Your task to perform on an android device: turn on wifi Image 0: 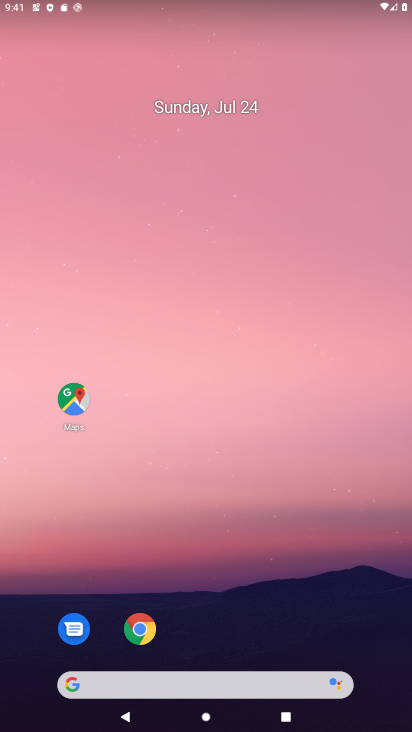
Step 0: drag from (268, 636) to (288, 43)
Your task to perform on an android device: turn on wifi Image 1: 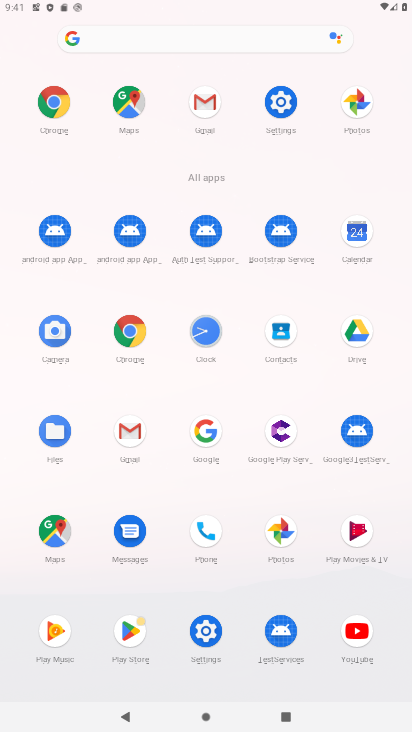
Step 1: click (266, 90)
Your task to perform on an android device: turn on wifi Image 2: 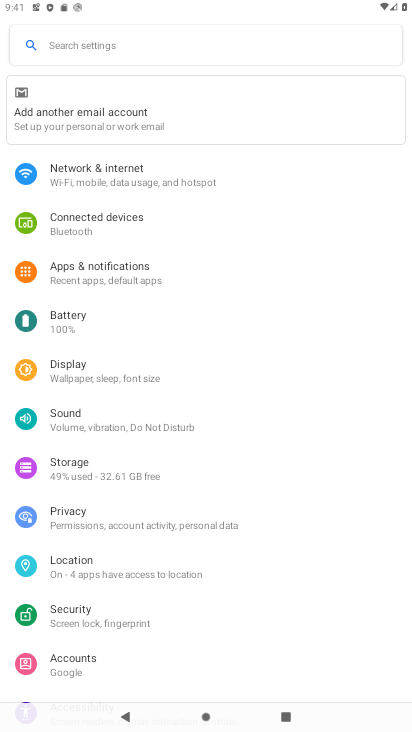
Step 2: click (174, 168)
Your task to perform on an android device: turn on wifi Image 3: 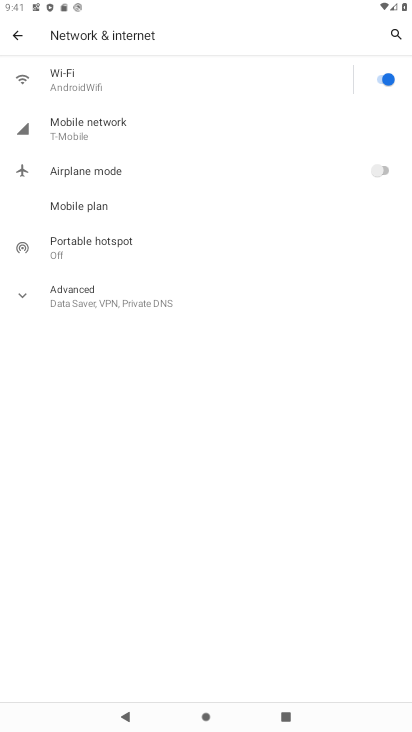
Step 3: click (176, 85)
Your task to perform on an android device: turn on wifi Image 4: 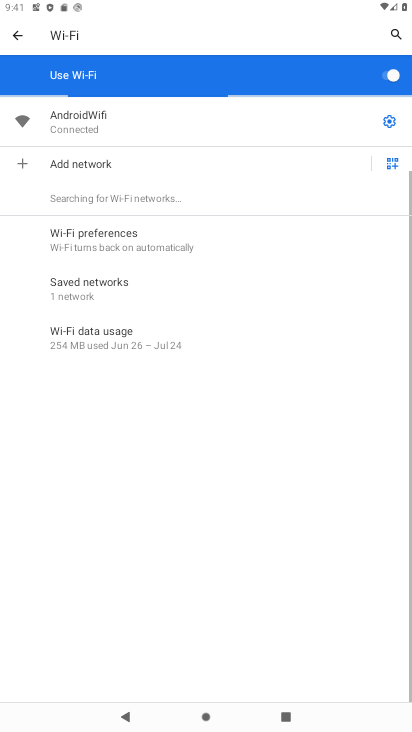
Step 4: task complete